Your task to perform on an android device: Find coffee shops on Maps Image 0: 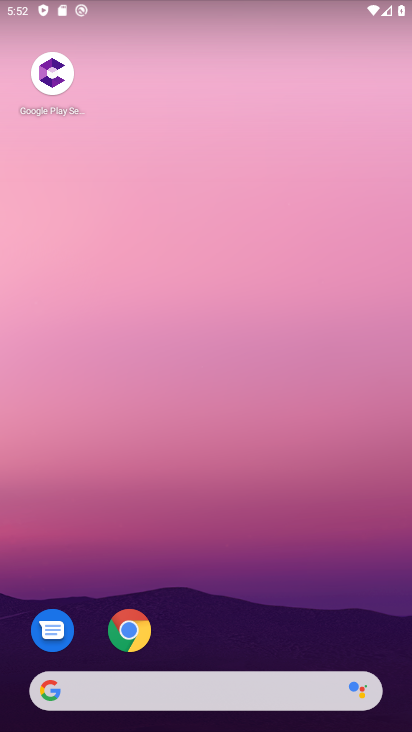
Step 0: drag from (269, 567) to (224, 14)
Your task to perform on an android device: Find coffee shops on Maps Image 1: 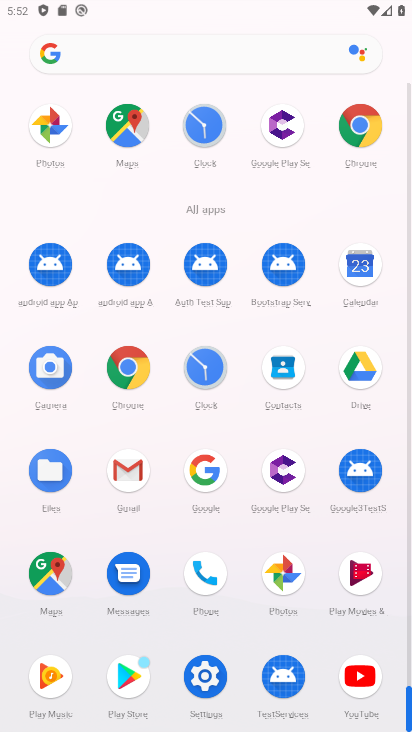
Step 1: drag from (10, 610) to (2, 244)
Your task to perform on an android device: Find coffee shops on Maps Image 2: 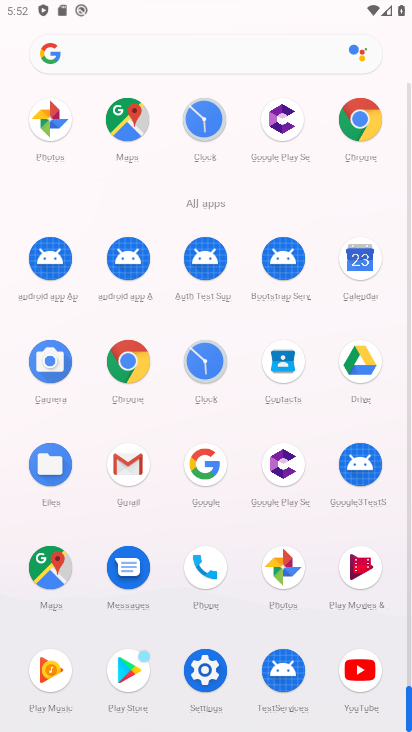
Step 2: click (48, 572)
Your task to perform on an android device: Find coffee shops on Maps Image 3: 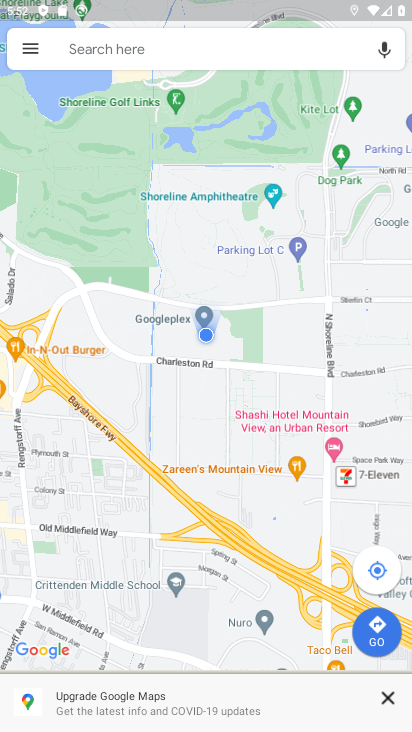
Step 3: click (227, 55)
Your task to perform on an android device: Find coffee shops on Maps Image 4: 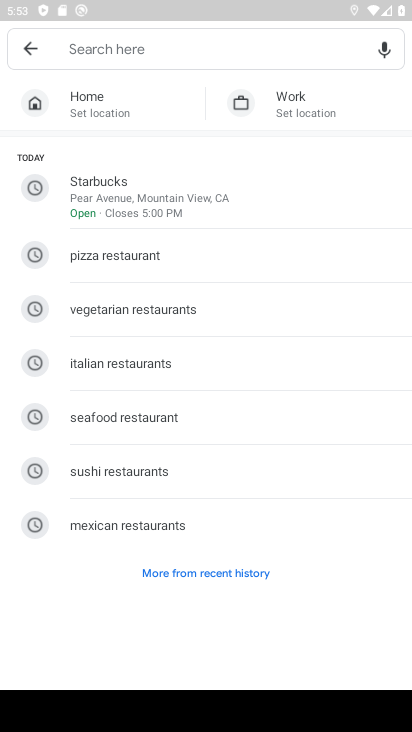
Step 4: type "coffee shops"
Your task to perform on an android device: Find coffee shops on Maps Image 5: 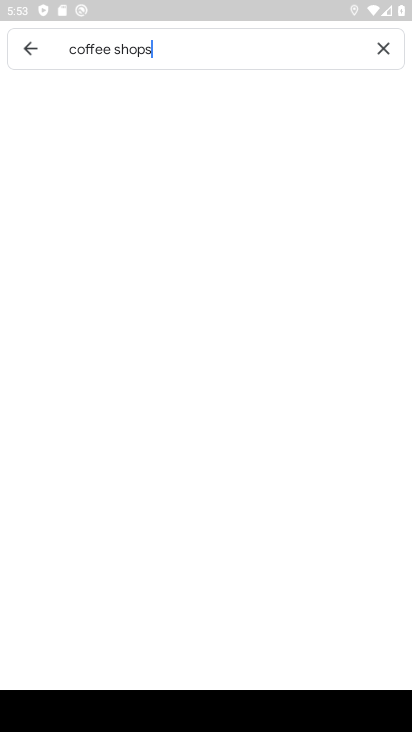
Step 5: type ""
Your task to perform on an android device: Find coffee shops on Maps Image 6: 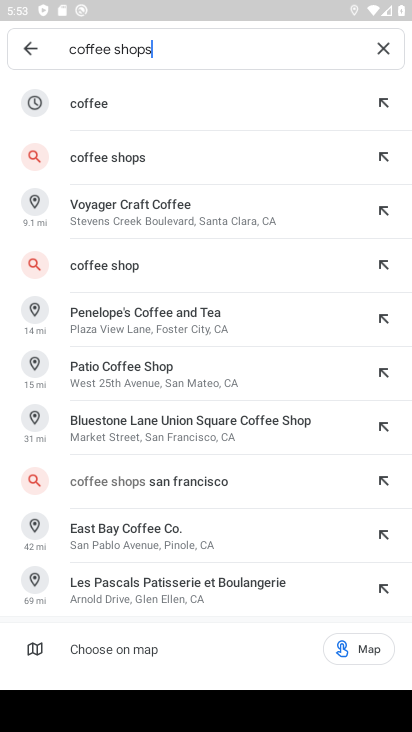
Step 6: click (125, 163)
Your task to perform on an android device: Find coffee shops on Maps Image 7: 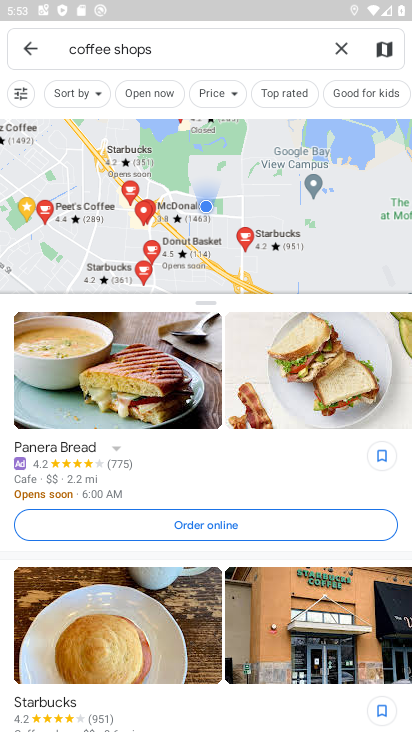
Step 7: task complete